Your task to perform on an android device: move an email to a new category in the gmail app Image 0: 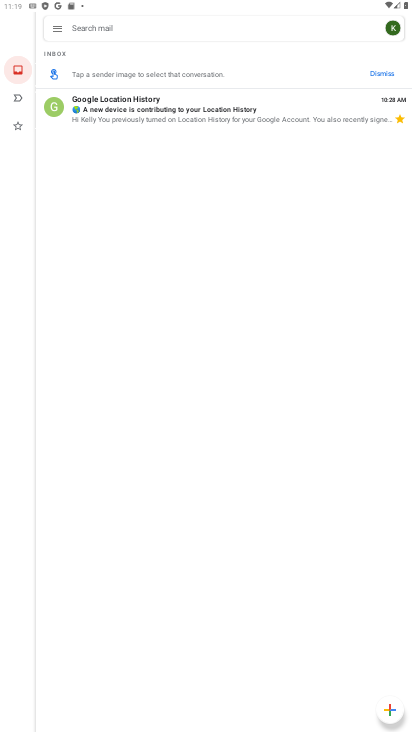
Step 0: press home button
Your task to perform on an android device: move an email to a new category in the gmail app Image 1: 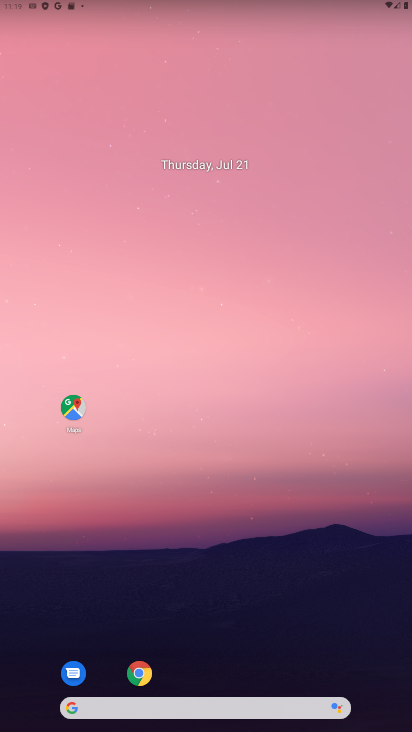
Step 1: drag from (200, 646) to (175, 163)
Your task to perform on an android device: move an email to a new category in the gmail app Image 2: 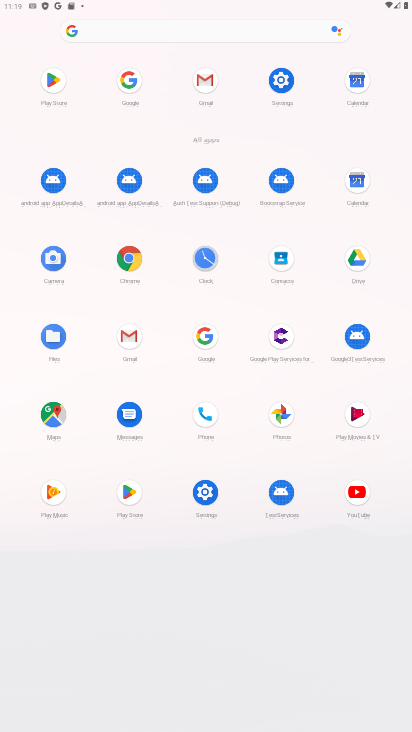
Step 2: click (120, 328)
Your task to perform on an android device: move an email to a new category in the gmail app Image 3: 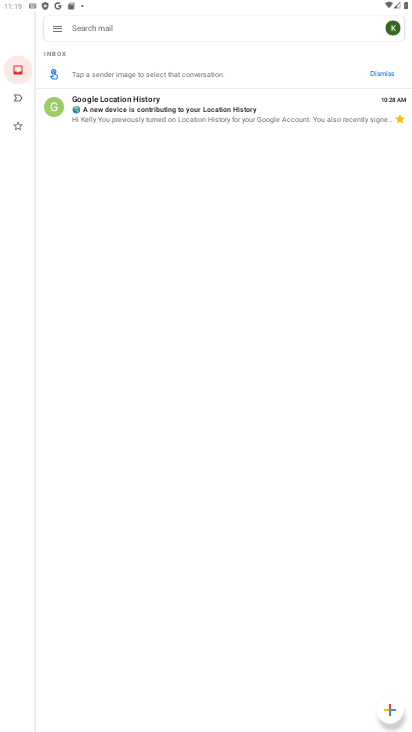
Step 3: click (56, 103)
Your task to perform on an android device: move an email to a new category in the gmail app Image 4: 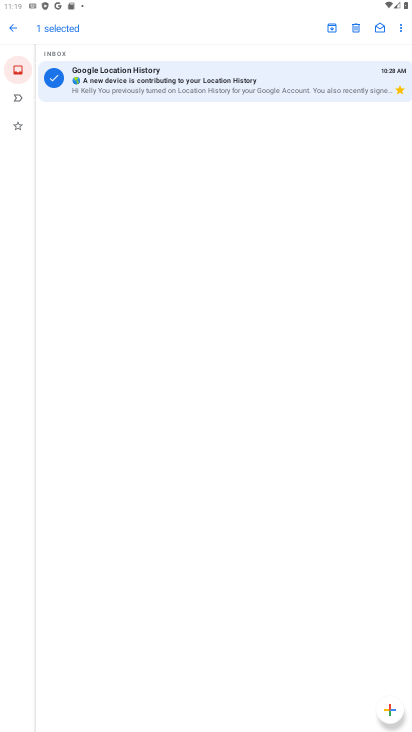
Step 4: click (399, 24)
Your task to perform on an android device: move an email to a new category in the gmail app Image 5: 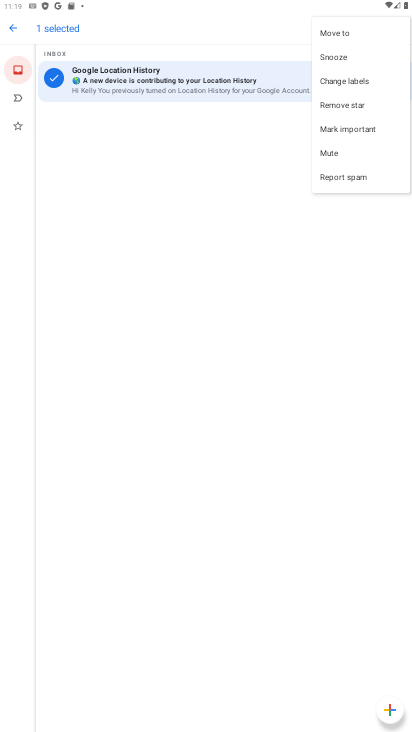
Step 5: click (356, 28)
Your task to perform on an android device: move an email to a new category in the gmail app Image 6: 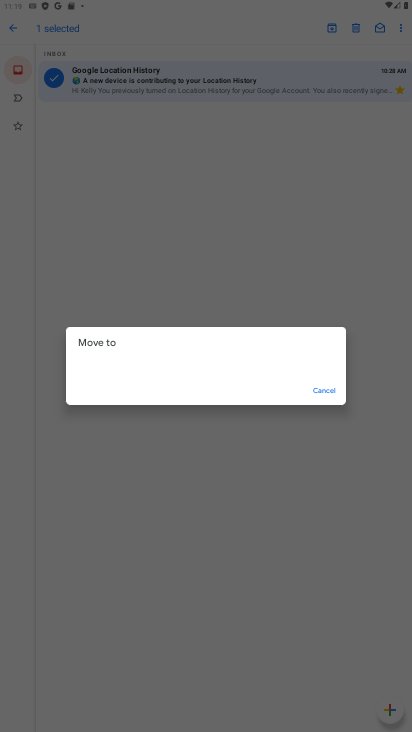
Step 6: click (320, 391)
Your task to perform on an android device: move an email to a new category in the gmail app Image 7: 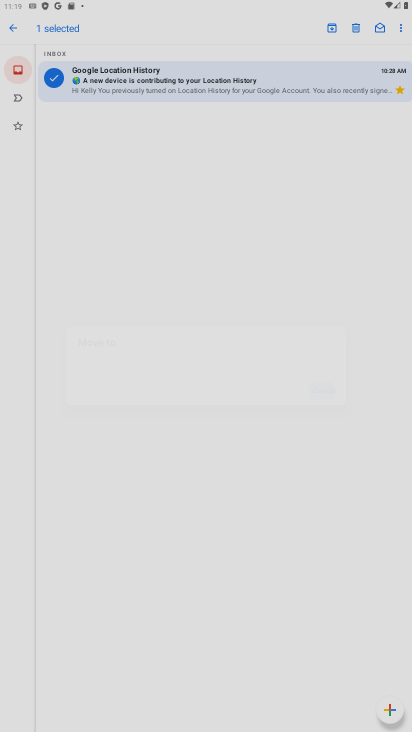
Step 7: task complete